Your task to perform on an android device: Turn off the flashlight Image 0: 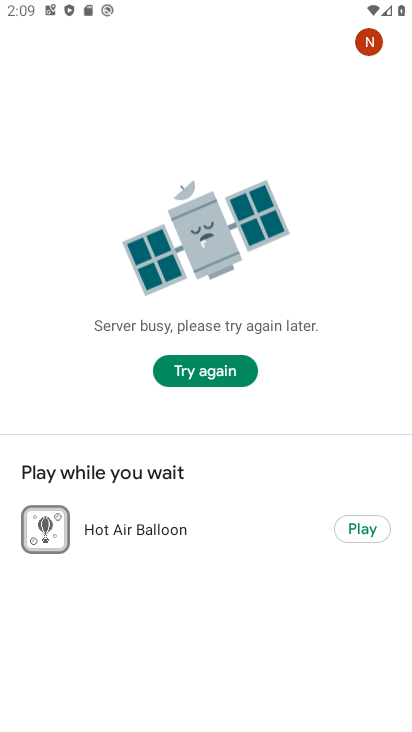
Step 0: press home button
Your task to perform on an android device: Turn off the flashlight Image 1: 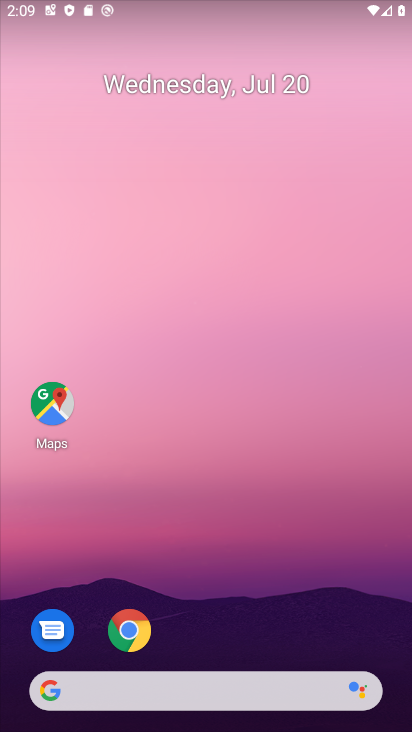
Step 1: drag from (297, 5) to (294, 342)
Your task to perform on an android device: Turn off the flashlight Image 2: 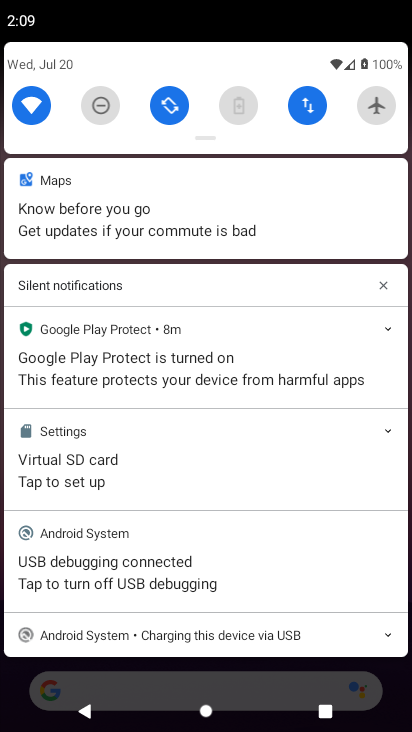
Step 2: drag from (270, 65) to (248, 335)
Your task to perform on an android device: Turn off the flashlight Image 3: 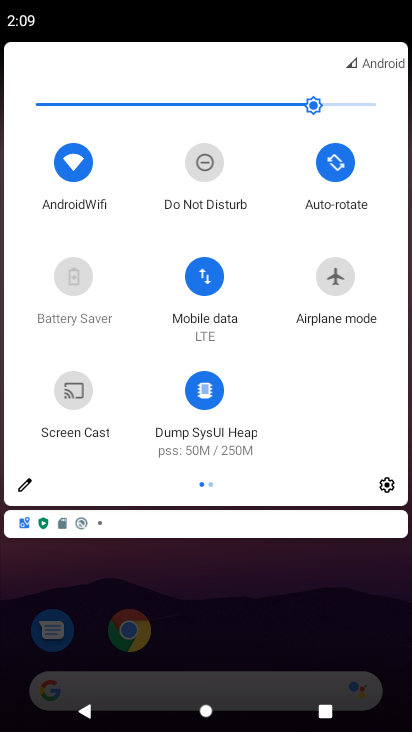
Step 3: click (23, 489)
Your task to perform on an android device: Turn off the flashlight Image 4: 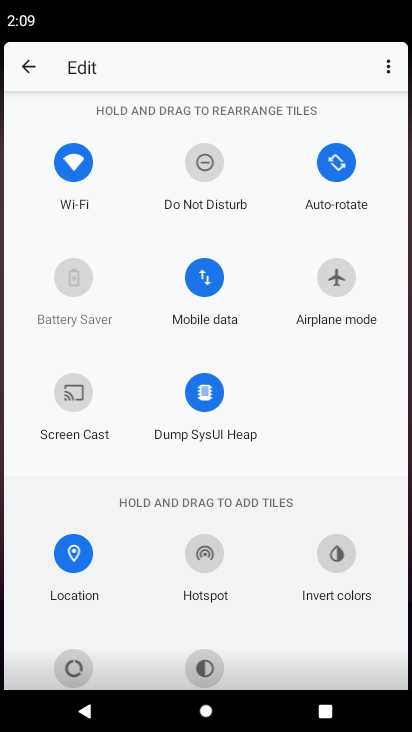
Step 4: task complete